Your task to perform on an android device: Go to notification settings Image 0: 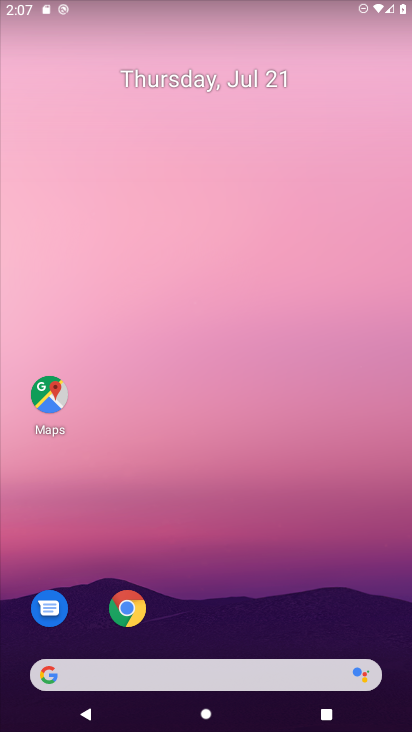
Step 0: drag from (224, 632) to (204, 180)
Your task to perform on an android device: Go to notification settings Image 1: 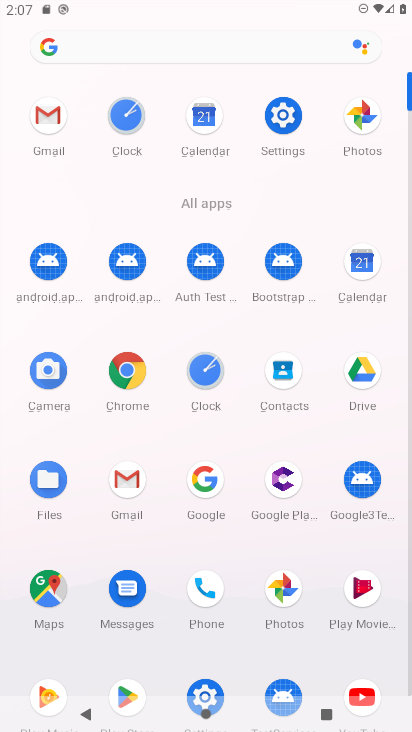
Step 1: click (282, 137)
Your task to perform on an android device: Go to notification settings Image 2: 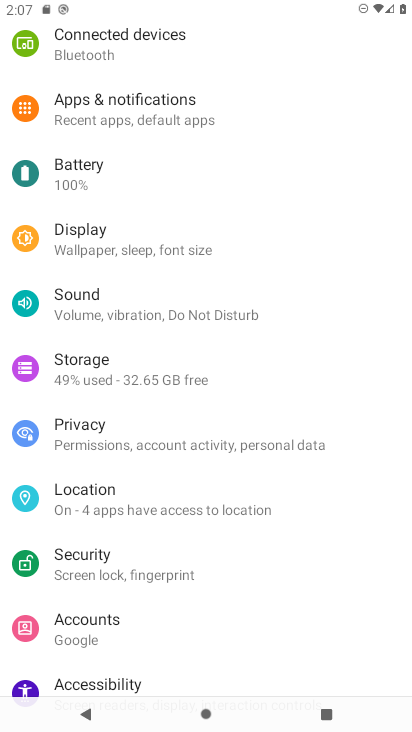
Step 2: click (218, 110)
Your task to perform on an android device: Go to notification settings Image 3: 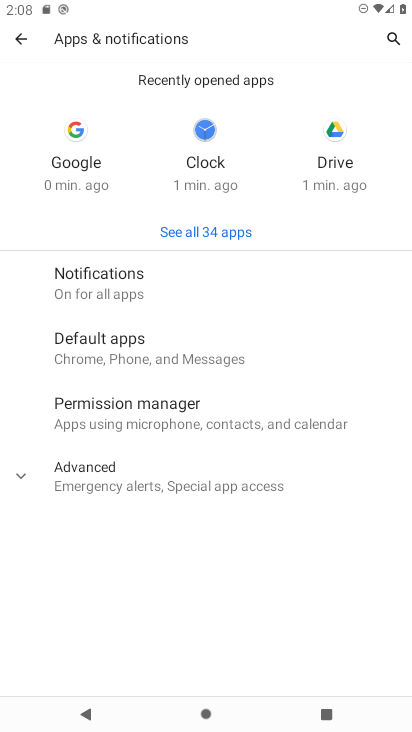
Step 3: click (154, 262)
Your task to perform on an android device: Go to notification settings Image 4: 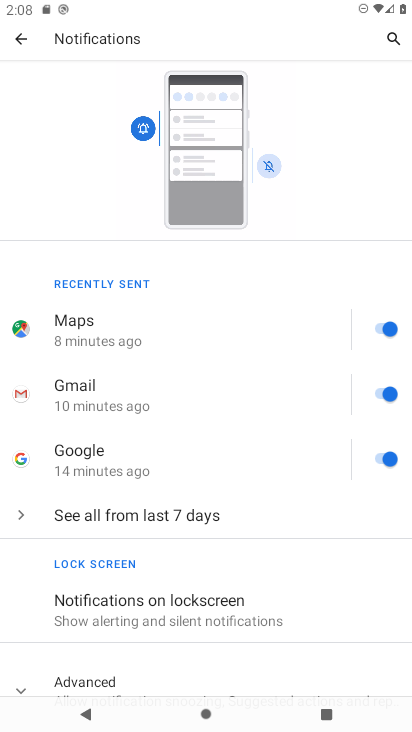
Step 4: task complete